Your task to perform on an android device: make emails show in primary in the gmail app Image 0: 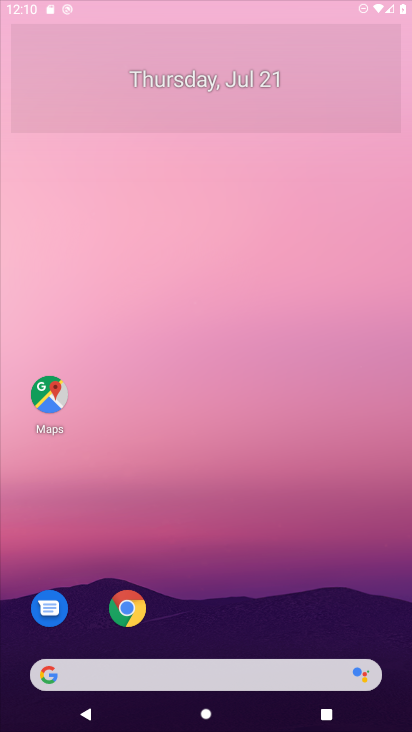
Step 0: press home button
Your task to perform on an android device: make emails show in primary in the gmail app Image 1: 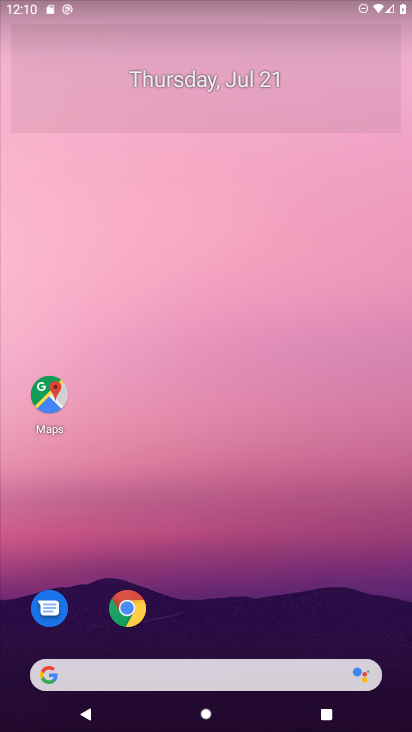
Step 1: drag from (226, 632) to (249, 68)
Your task to perform on an android device: make emails show in primary in the gmail app Image 2: 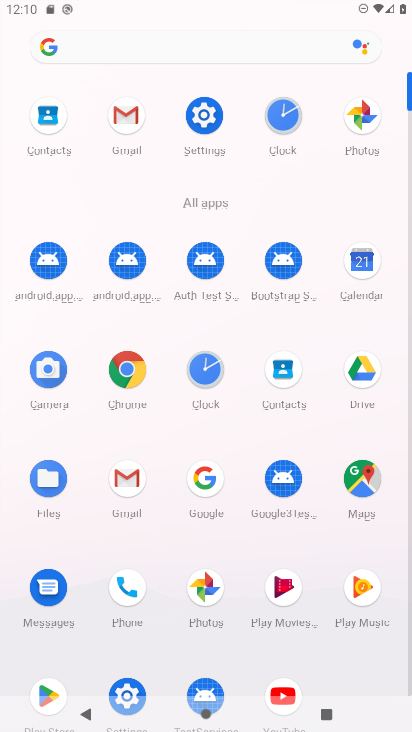
Step 2: click (126, 131)
Your task to perform on an android device: make emails show in primary in the gmail app Image 3: 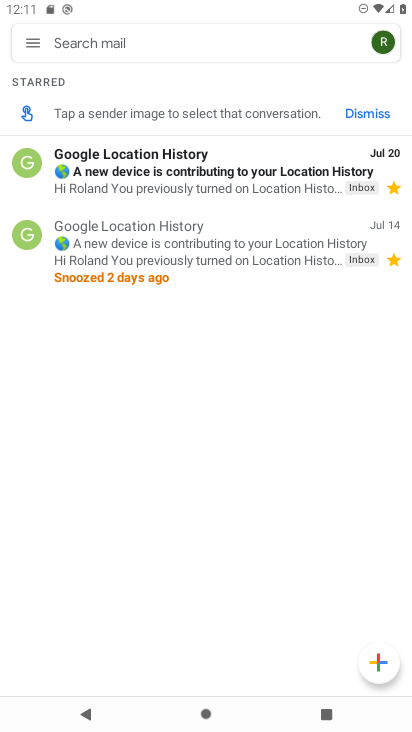
Step 3: click (32, 39)
Your task to perform on an android device: make emails show in primary in the gmail app Image 4: 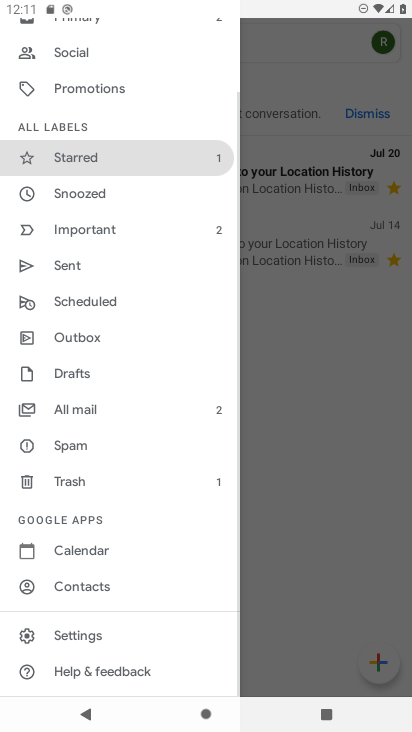
Step 4: click (90, 634)
Your task to perform on an android device: make emails show in primary in the gmail app Image 5: 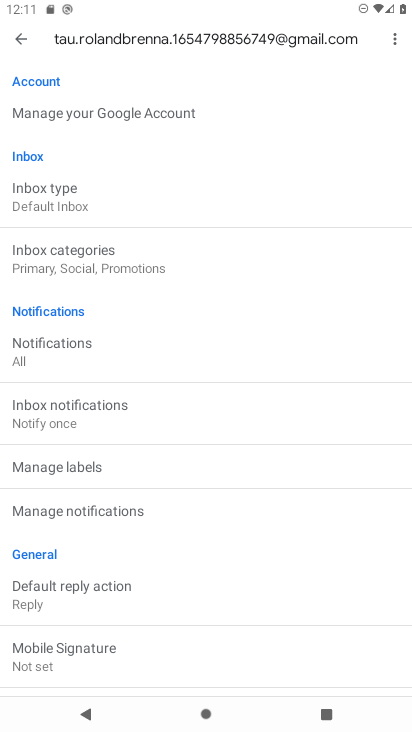
Step 5: click (87, 255)
Your task to perform on an android device: make emails show in primary in the gmail app Image 6: 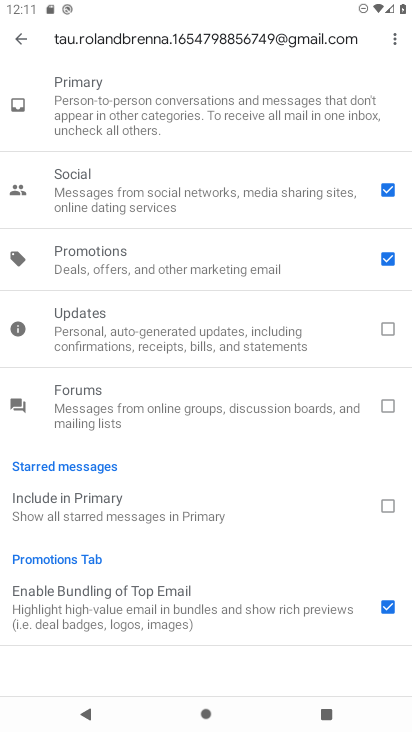
Step 6: click (390, 191)
Your task to perform on an android device: make emails show in primary in the gmail app Image 7: 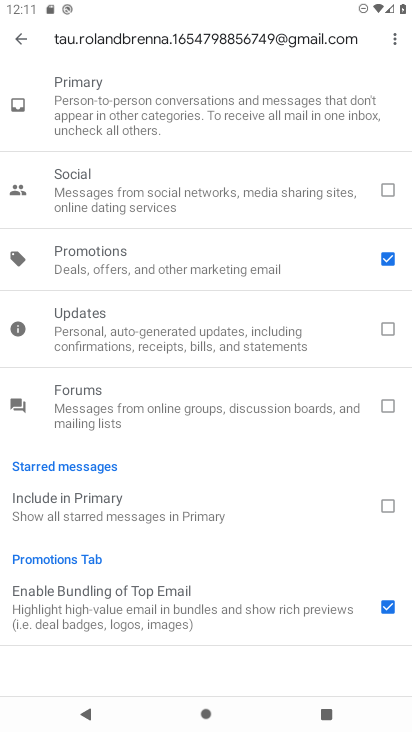
Step 7: click (388, 266)
Your task to perform on an android device: make emails show in primary in the gmail app Image 8: 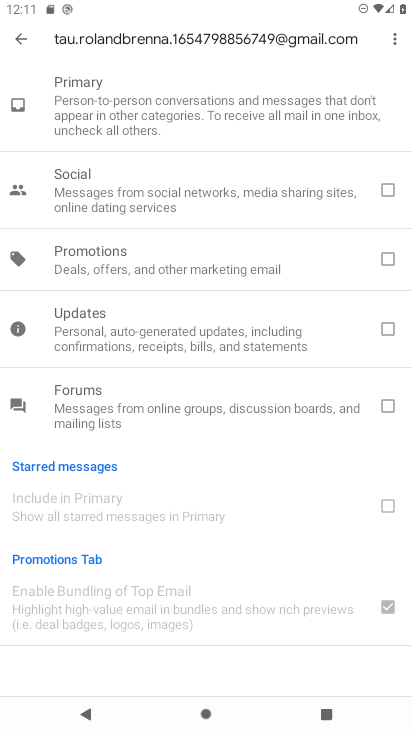
Step 8: task complete